Your task to perform on an android device: Open the stopwatch Image 0: 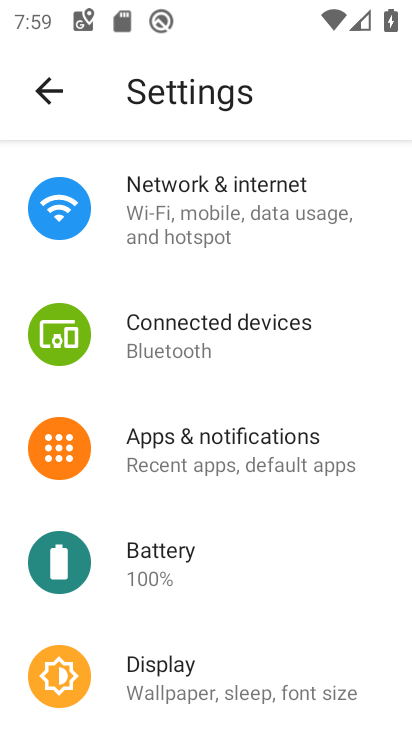
Step 0: press home button
Your task to perform on an android device: Open the stopwatch Image 1: 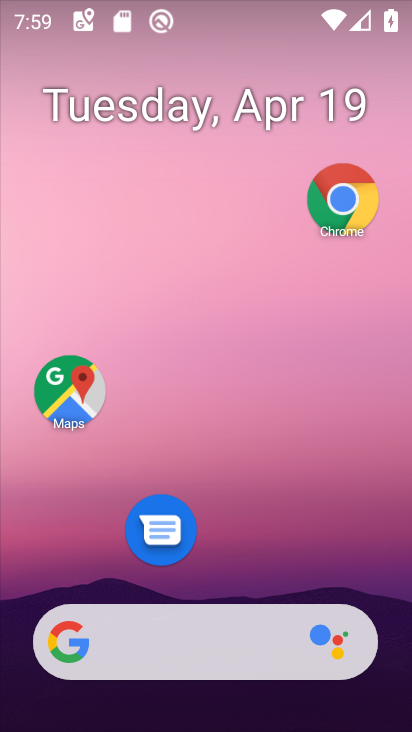
Step 1: drag from (211, 536) to (314, 145)
Your task to perform on an android device: Open the stopwatch Image 2: 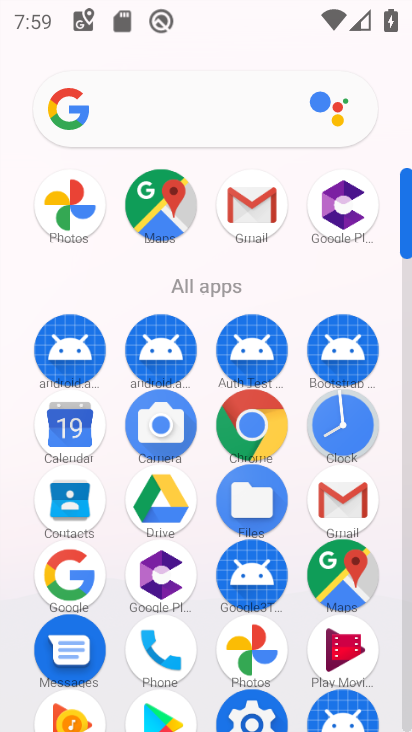
Step 2: click (344, 431)
Your task to perform on an android device: Open the stopwatch Image 3: 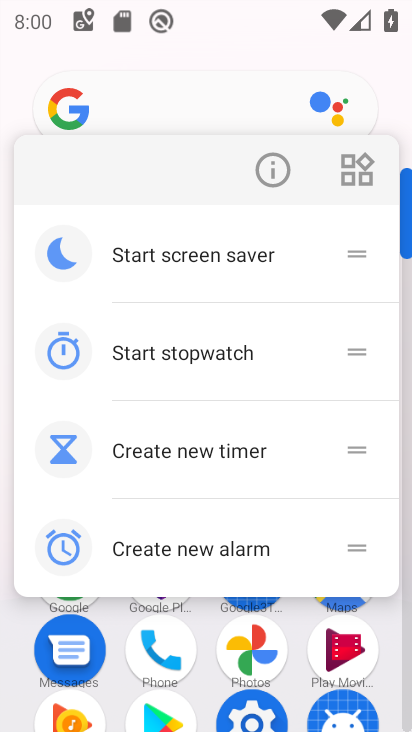
Step 3: drag from (239, 545) to (320, 79)
Your task to perform on an android device: Open the stopwatch Image 4: 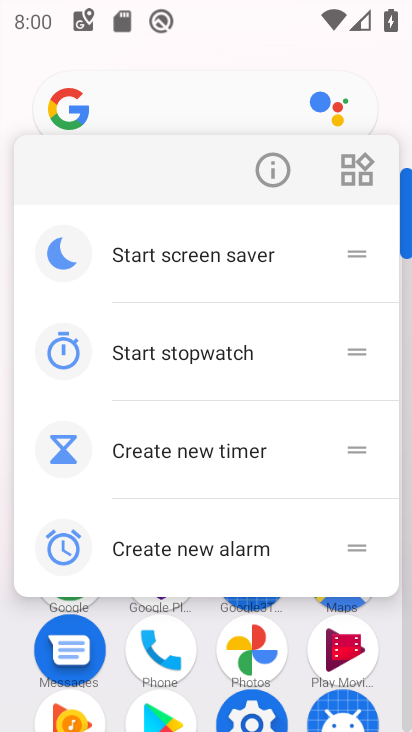
Step 4: click (276, 158)
Your task to perform on an android device: Open the stopwatch Image 5: 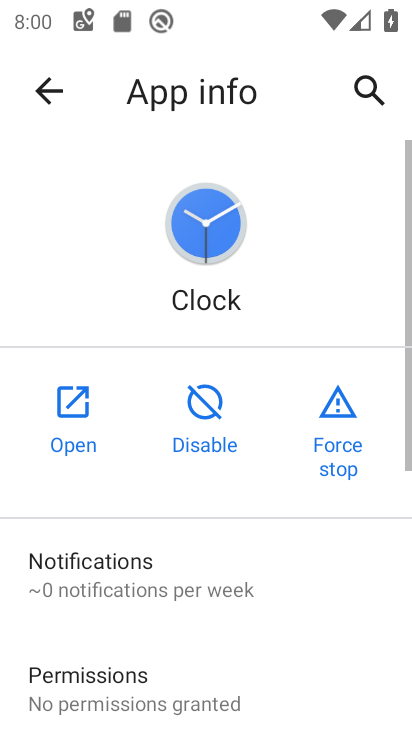
Step 5: click (70, 413)
Your task to perform on an android device: Open the stopwatch Image 6: 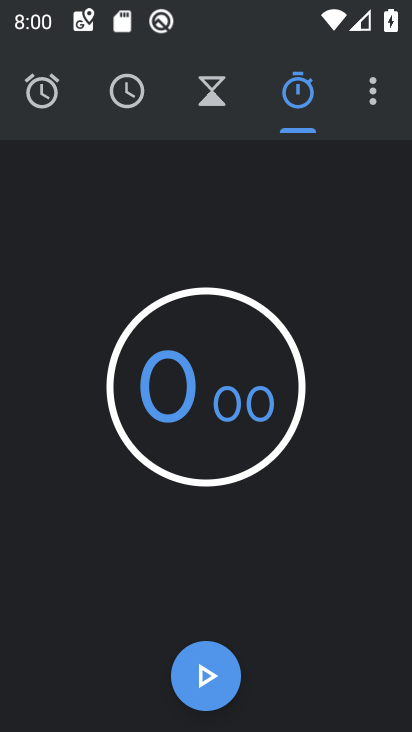
Step 6: click (192, 703)
Your task to perform on an android device: Open the stopwatch Image 7: 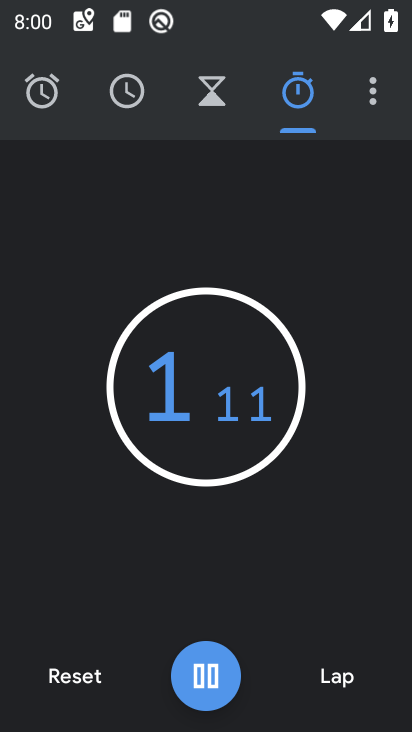
Step 7: task complete